Your task to perform on an android device: open chrome privacy settings Image 0: 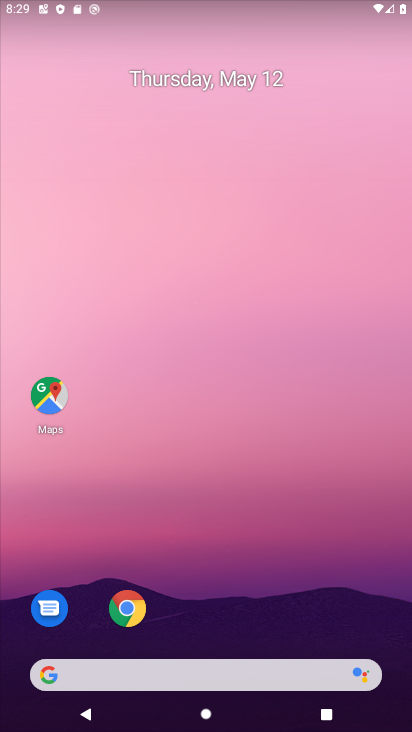
Step 0: click (137, 621)
Your task to perform on an android device: open chrome privacy settings Image 1: 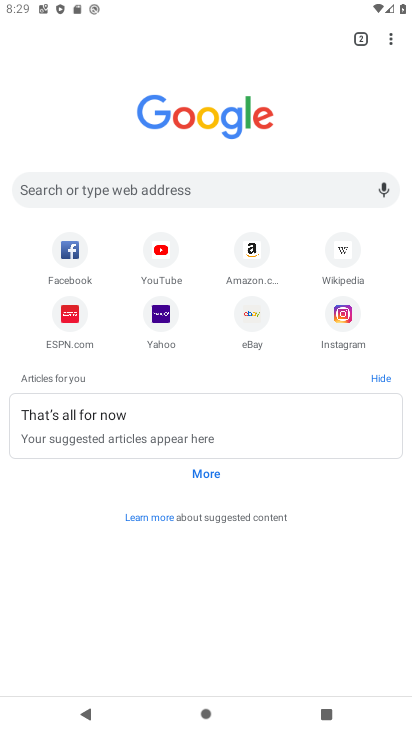
Step 1: drag from (401, 32) to (304, 313)
Your task to perform on an android device: open chrome privacy settings Image 2: 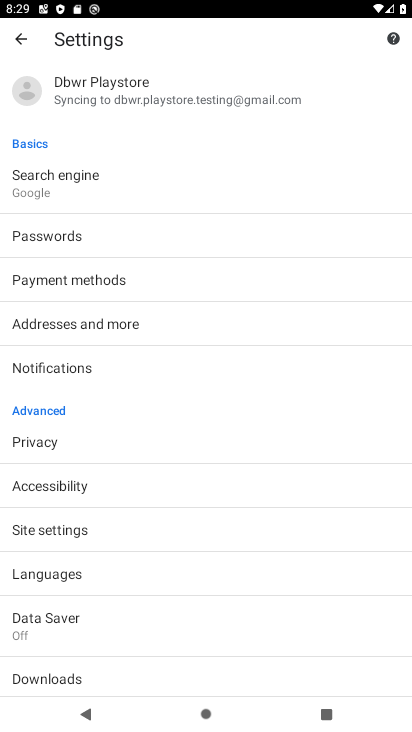
Step 2: click (114, 444)
Your task to perform on an android device: open chrome privacy settings Image 3: 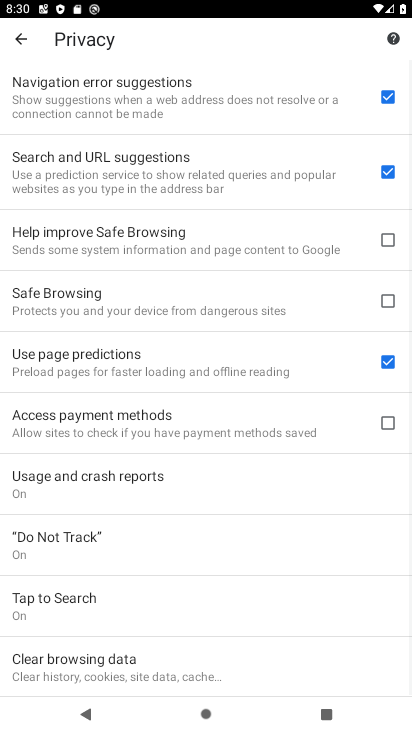
Step 3: task complete